Your task to perform on an android device: open chrome and create a bookmark for the current page Image 0: 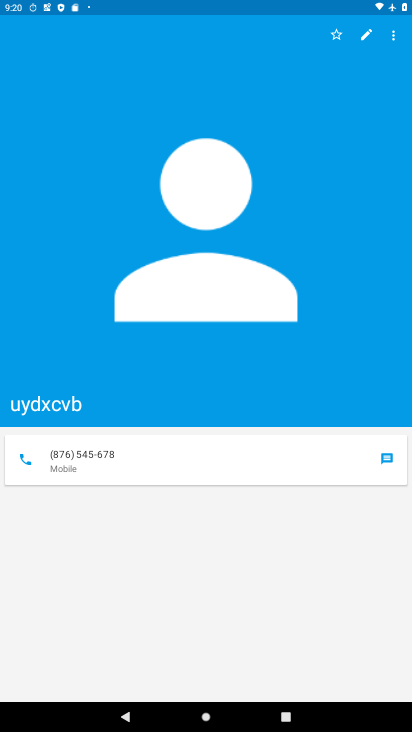
Step 0: press home button
Your task to perform on an android device: open chrome and create a bookmark for the current page Image 1: 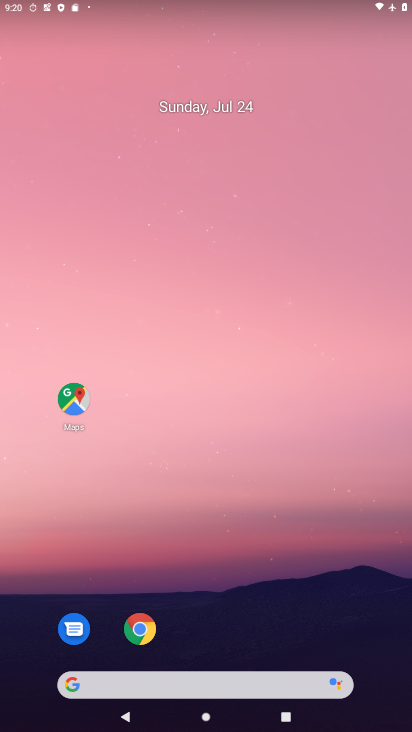
Step 1: drag from (177, 691) to (190, 179)
Your task to perform on an android device: open chrome and create a bookmark for the current page Image 2: 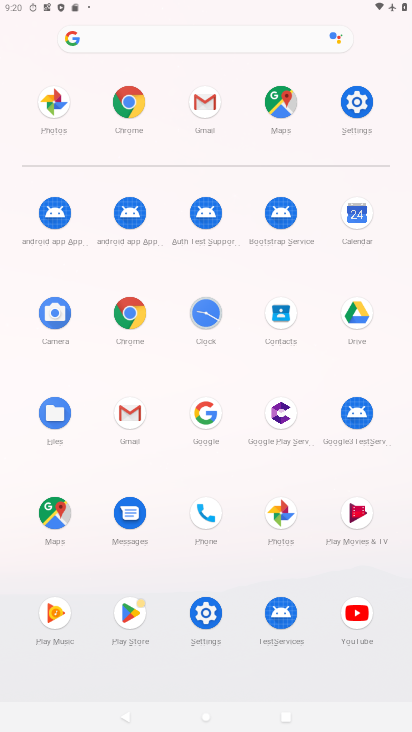
Step 2: click (134, 311)
Your task to perform on an android device: open chrome and create a bookmark for the current page Image 3: 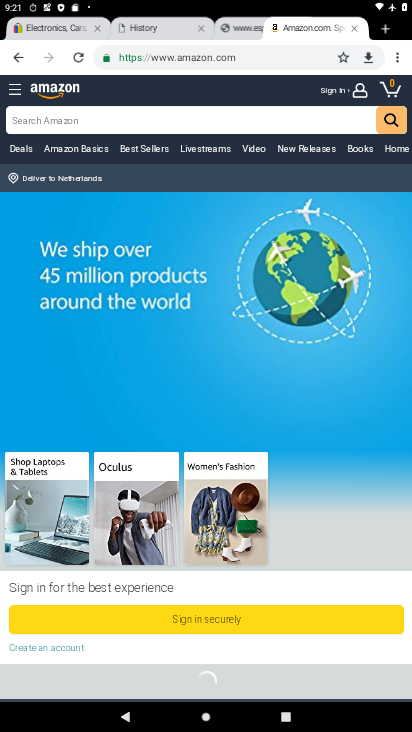
Step 3: click (405, 63)
Your task to perform on an android device: open chrome and create a bookmark for the current page Image 4: 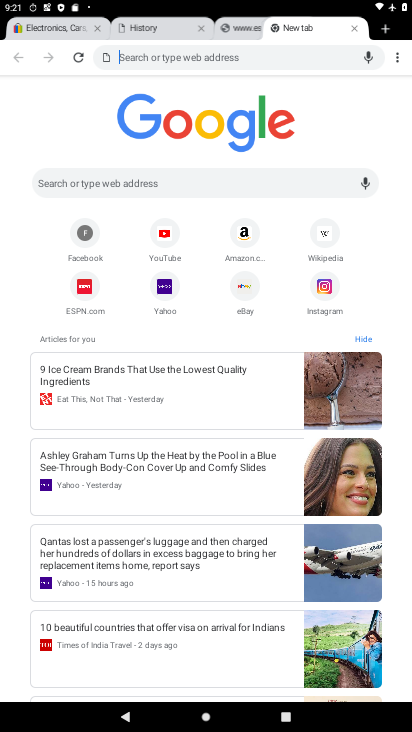
Step 4: click (396, 62)
Your task to perform on an android device: open chrome and create a bookmark for the current page Image 5: 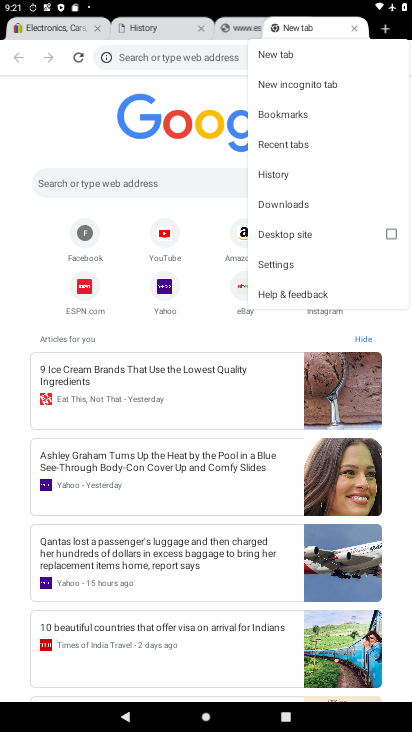
Step 5: task complete